Your task to perform on an android device: Search for Italian restaurants on Maps Image 0: 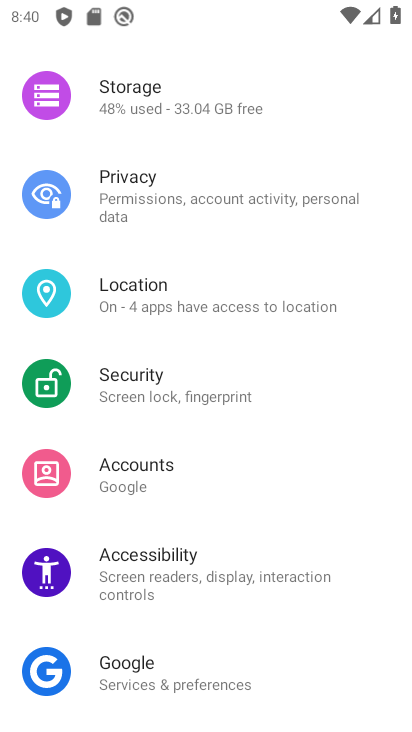
Step 0: drag from (320, 295) to (294, 589)
Your task to perform on an android device: Search for Italian restaurants on Maps Image 1: 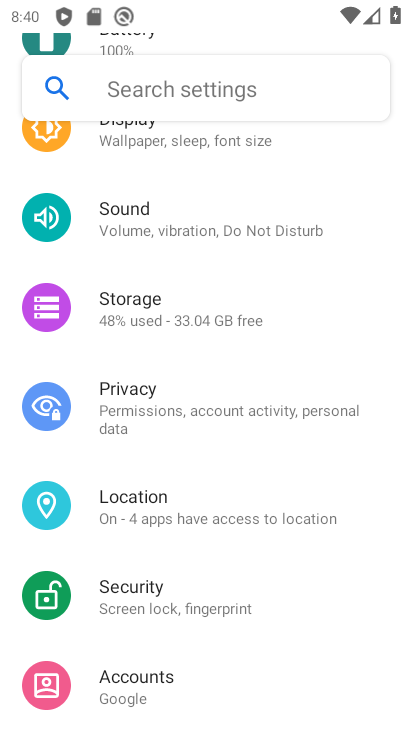
Step 1: press home button
Your task to perform on an android device: Search for Italian restaurants on Maps Image 2: 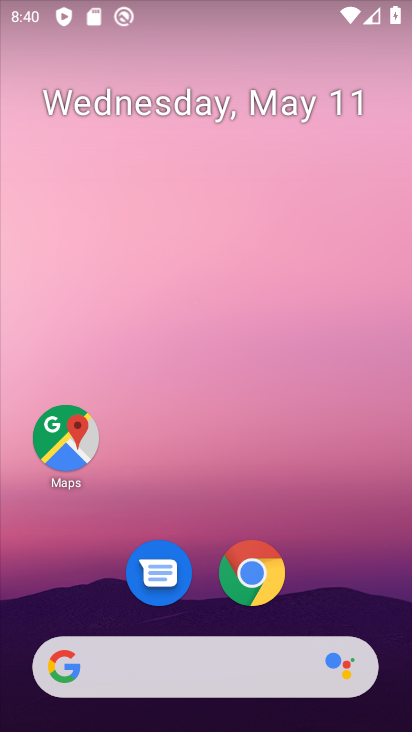
Step 2: click (71, 424)
Your task to perform on an android device: Search for Italian restaurants on Maps Image 3: 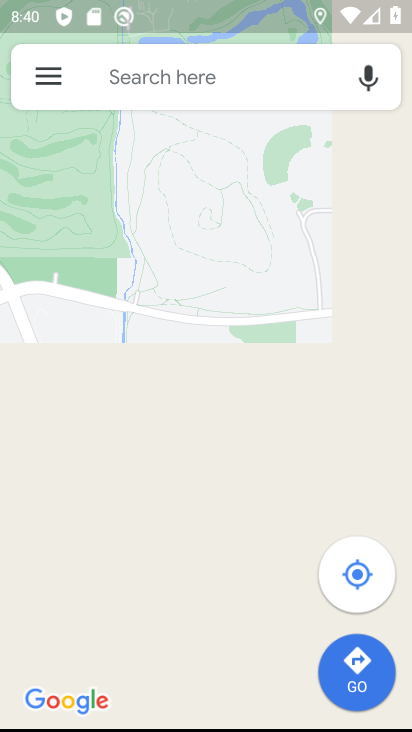
Step 3: click (166, 85)
Your task to perform on an android device: Search for Italian restaurants on Maps Image 4: 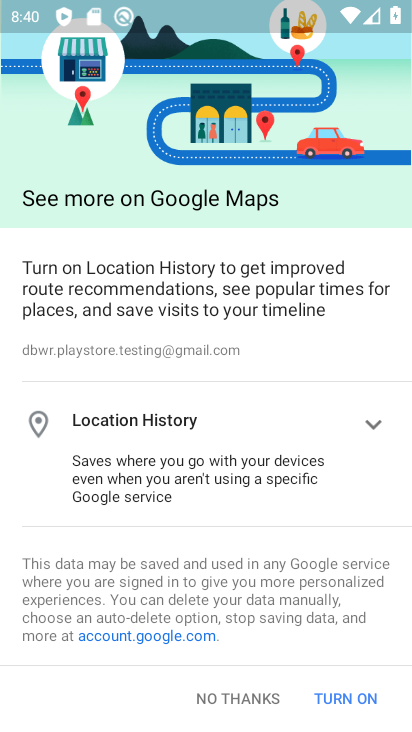
Step 4: click (358, 711)
Your task to perform on an android device: Search for Italian restaurants on Maps Image 5: 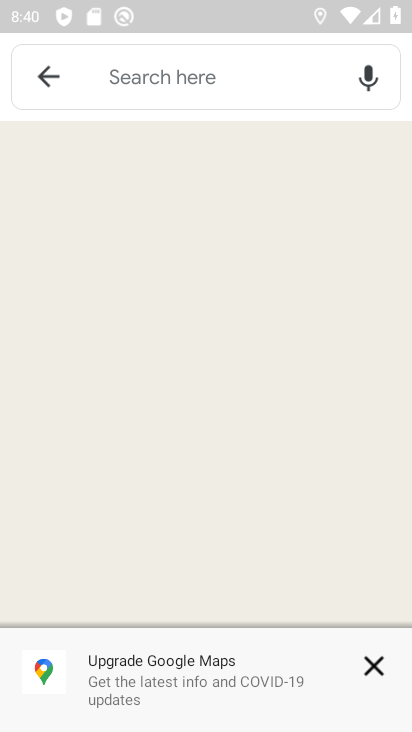
Step 5: click (379, 676)
Your task to perform on an android device: Search for Italian restaurants on Maps Image 6: 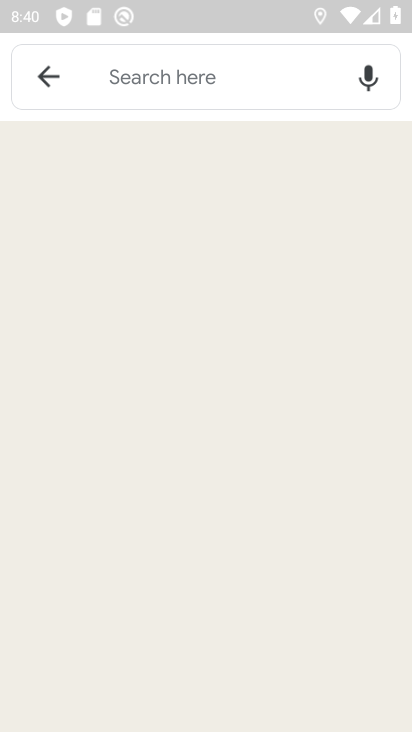
Step 6: click (235, 75)
Your task to perform on an android device: Search for Italian restaurants on Maps Image 7: 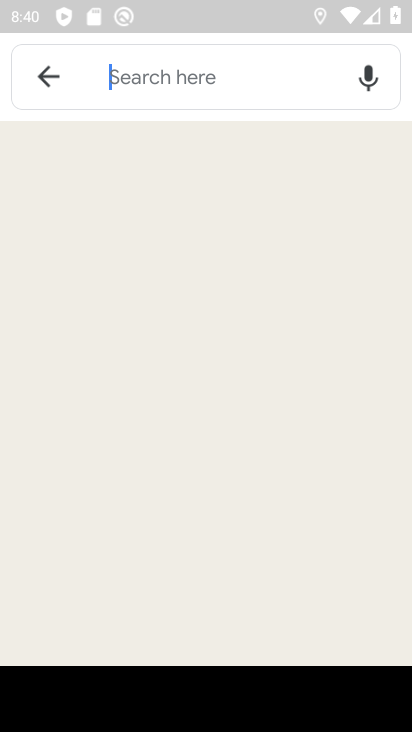
Step 7: type "italian"
Your task to perform on an android device: Search for Italian restaurants on Maps Image 8: 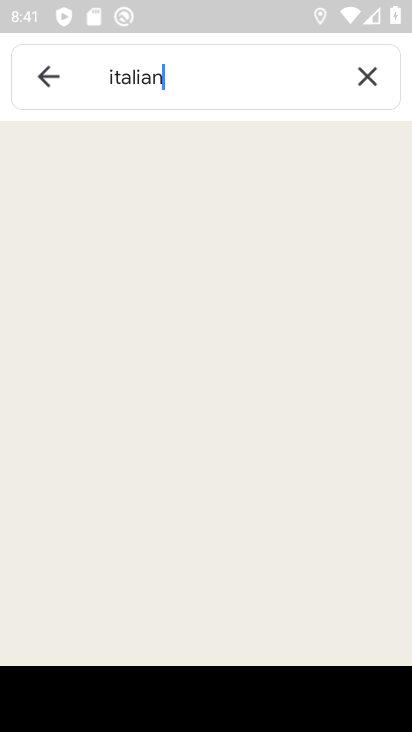
Step 8: click (243, 82)
Your task to perform on an android device: Search for Italian restaurants on Maps Image 9: 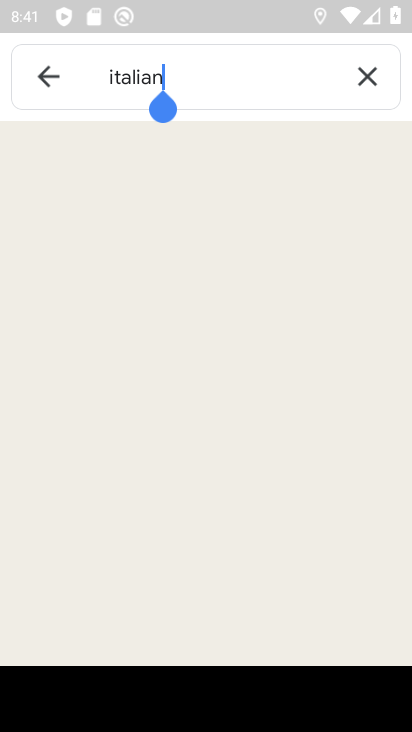
Step 9: task complete